Your task to perform on an android device: Open Maps and search for coffee Image 0: 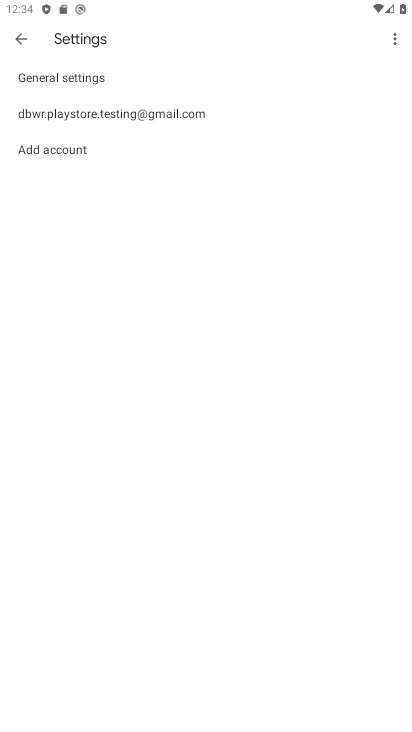
Step 0: press home button
Your task to perform on an android device: Open Maps and search for coffee Image 1: 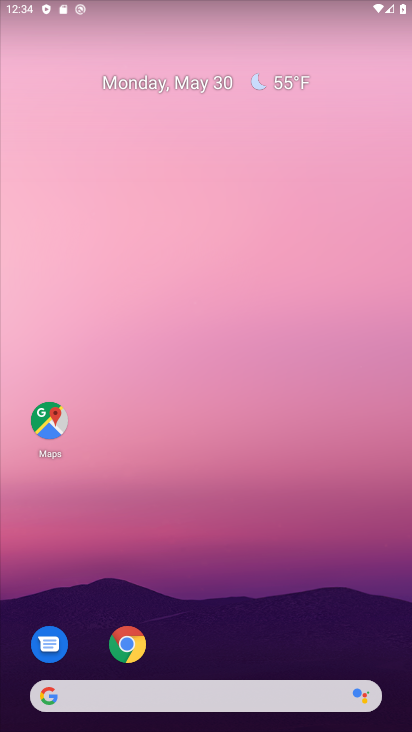
Step 1: click (47, 406)
Your task to perform on an android device: Open Maps and search for coffee Image 2: 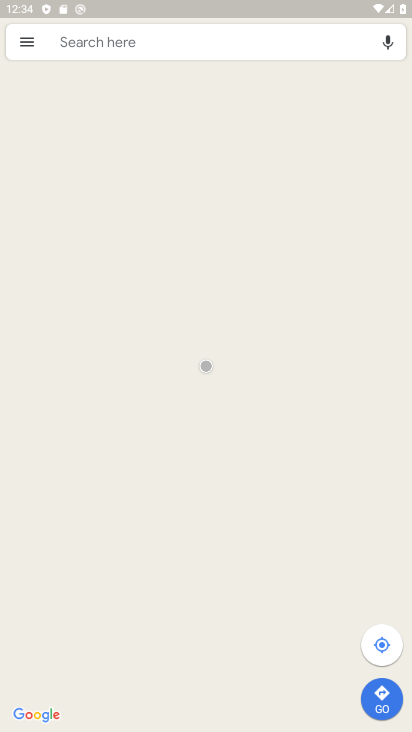
Step 2: click (275, 48)
Your task to perform on an android device: Open Maps and search for coffee Image 3: 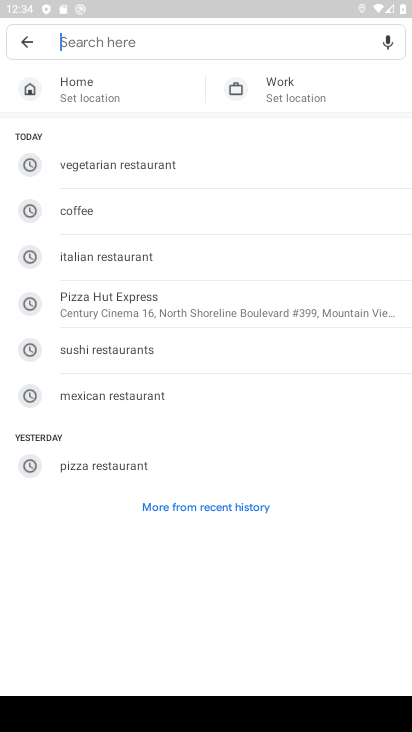
Step 3: type "coffee"
Your task to perform on an android device: Open Maps and search for coffee Image 4: 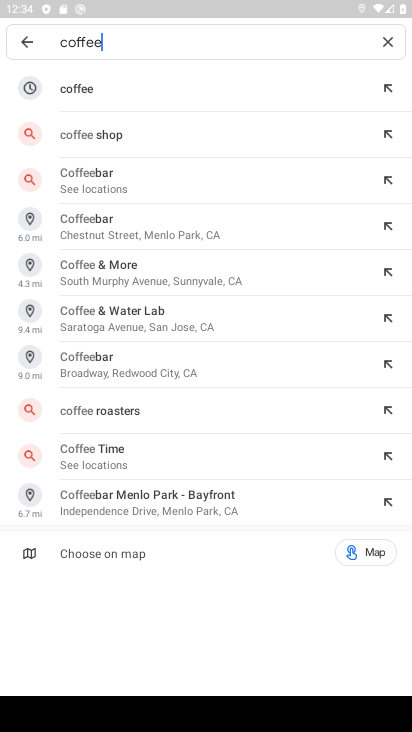
Step 4: click (99, 94)
Your task to perform on an android device: Open Maps and search for coffee Image 5: 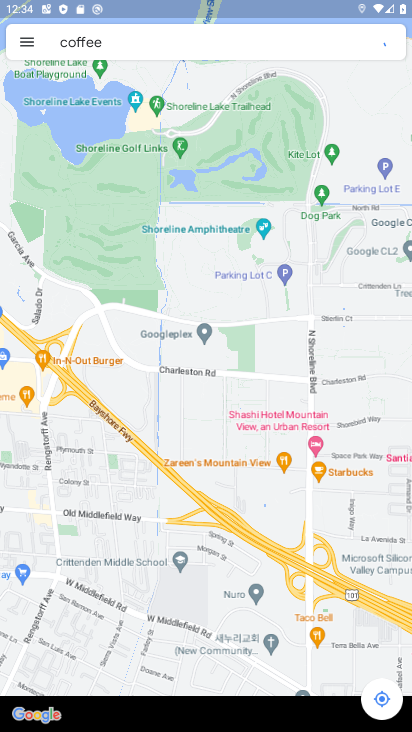
Step 5: task complete